Your task to perform on an android device: turn vacation reply on in the gmail app Image 0: 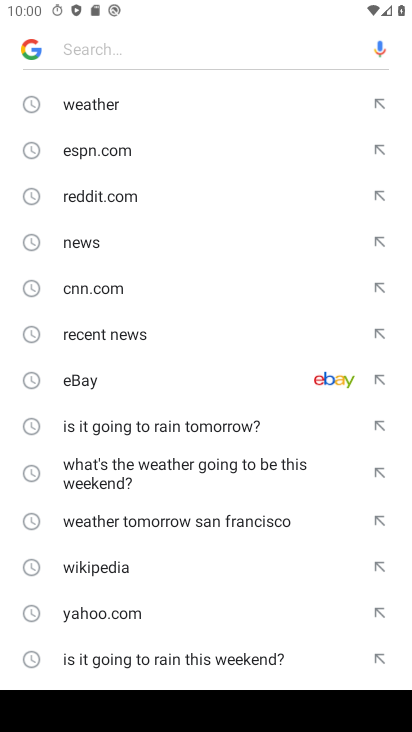
Step 0: press home button
Your task to perform on an android device: turn vacation reply on in the gmail app Image 1: 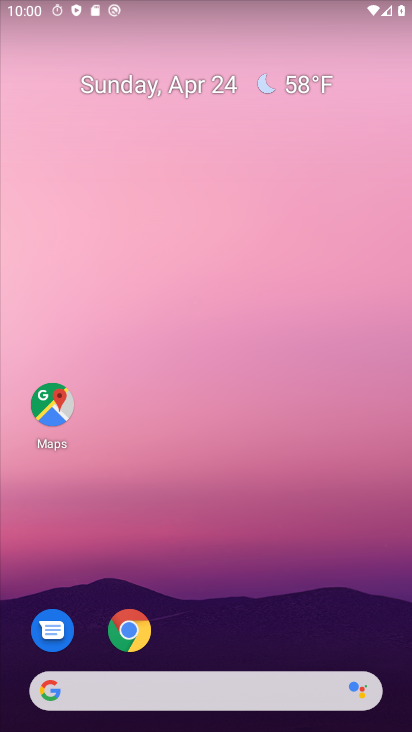
Step 1: drag from (201, 618) to (204, 173)
Your task to perform on an android device: turn vacation reply on in the gmail app Image 2: 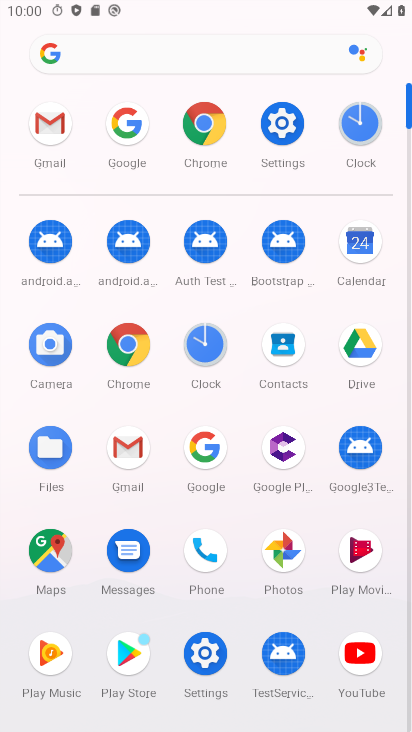
Step 2: click (125, 446)
Your task to perform on an android device: turn vacation reply on in the gmail app Image 3: 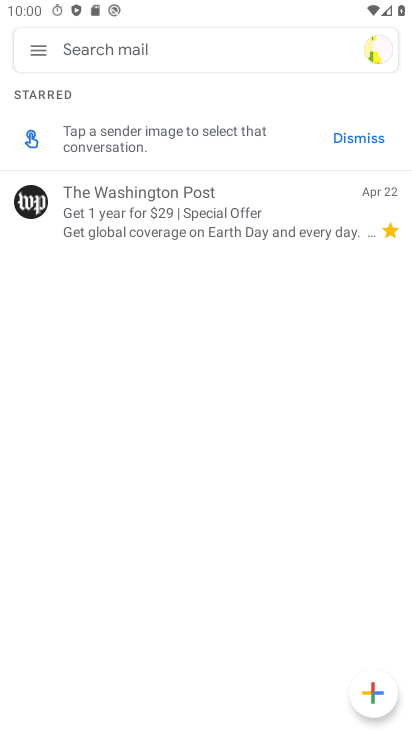
Step 3: click (35, 59)
Your task to perform on an android device: turn vacation reply on in the gmail app Image 4: 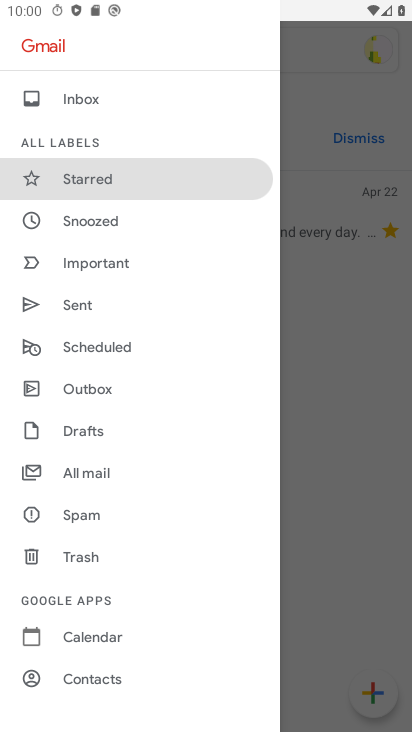
Step 4: drag from (108, 538) to (129, 81)
Your task to perform on an android device: turn vacation reply on in the gmail app Image 5: 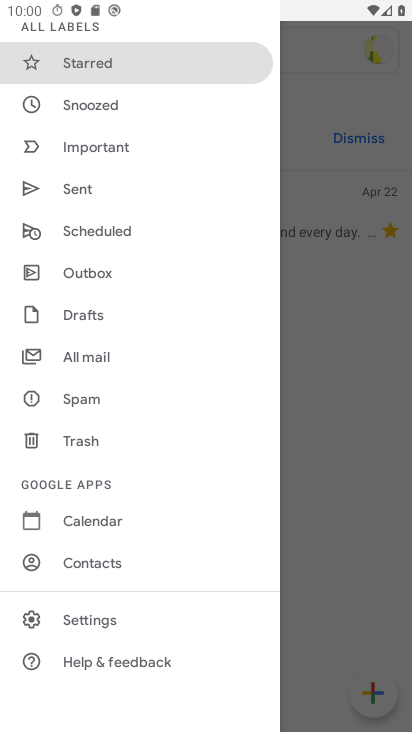
Step 5: click (117, 625)
Your task to perform on an android device: turn vacation reply on in the gmail app Image 6: 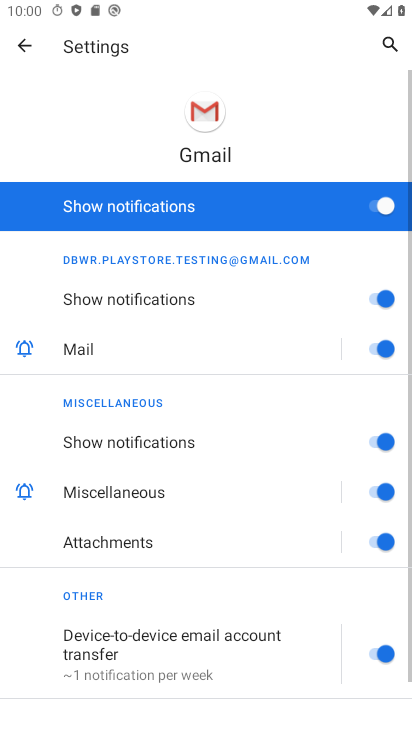
Step 6: click (24, 47)
Your task to perform on an android device: turn vacation reply on in the gmail app Image 7: 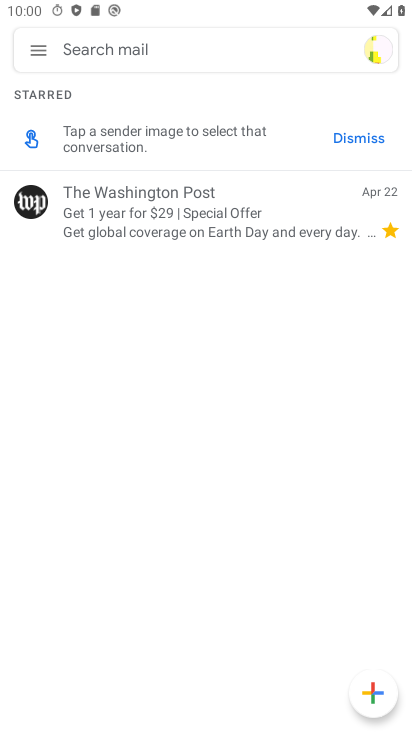
Step 7: click (29, 32)
Your task to perform on an android device: turn vacation reply on in the gmail app Image 8: 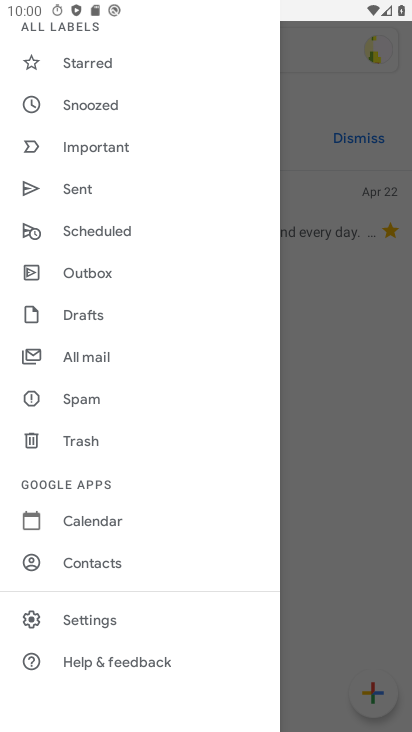
Step 8: click (101, 599)
Your task to perform on an android device: turn vacation reply on in the gmail app Image 9: 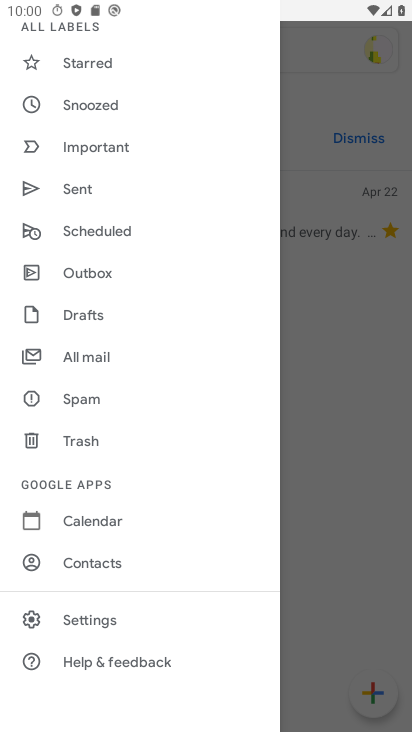
Step 9: click (88, 616)
Your task to perform on an android device: turn vacation reply on in the gmail app Image 10: 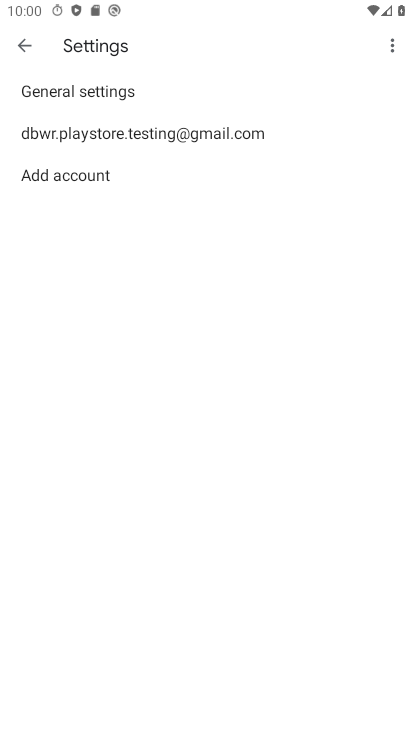
Step 10: click (167, 140)
Your task to perform on an android device: turn vacation reply on in the gmail app Image 11: 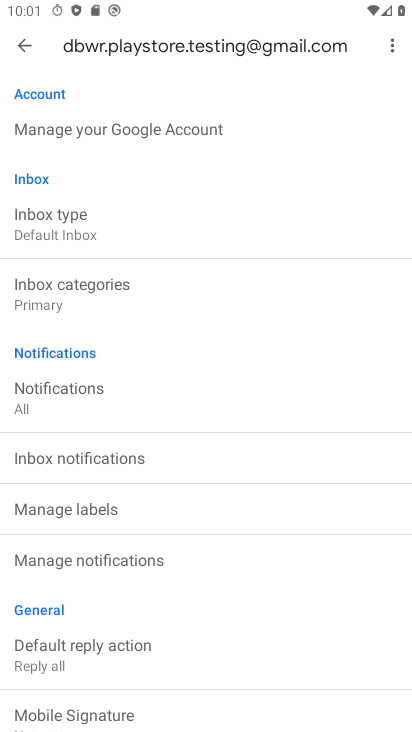
Step 11: drag from (114, 533) to (129, 23)
Your task to perform on an android device: turn vacation reply on in the gmail app Image 12: 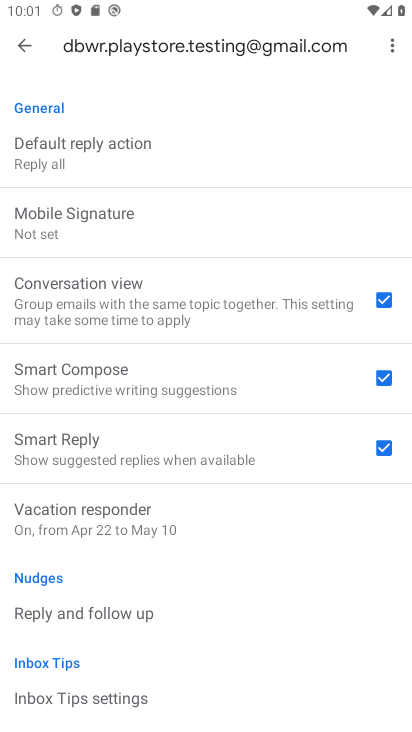
Step 12: click (341, 520)
Your task to perform on an android device: turn vacation reply on in the gmail app Image 13: 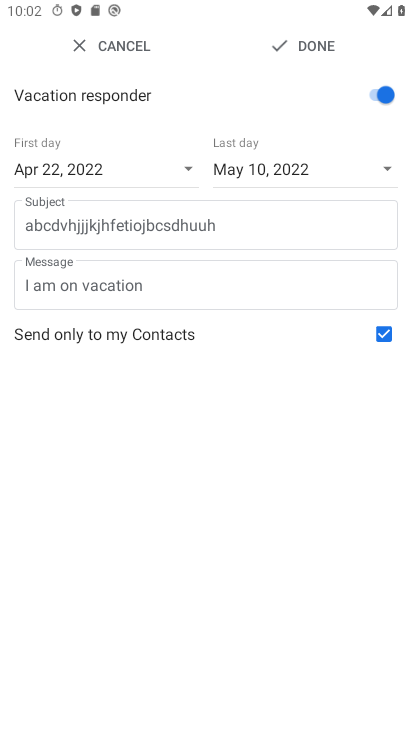
Step 13: task complete